Your task to perform on an android device: Open Google Image 0: 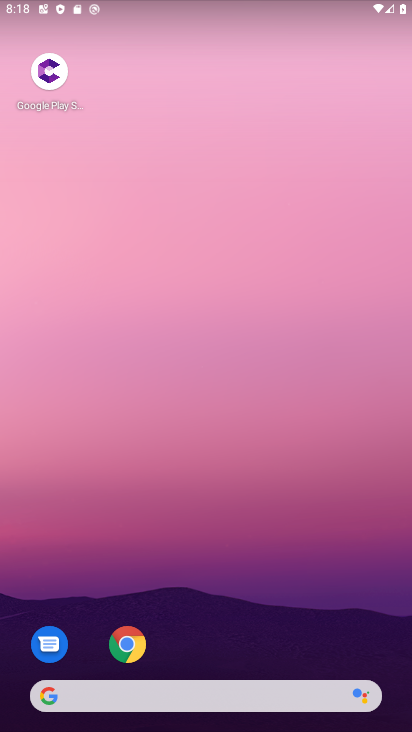
Step 0: drag from (255, 712) to (273, 85)
Your task to perform on an android device: Open Google Image 1: 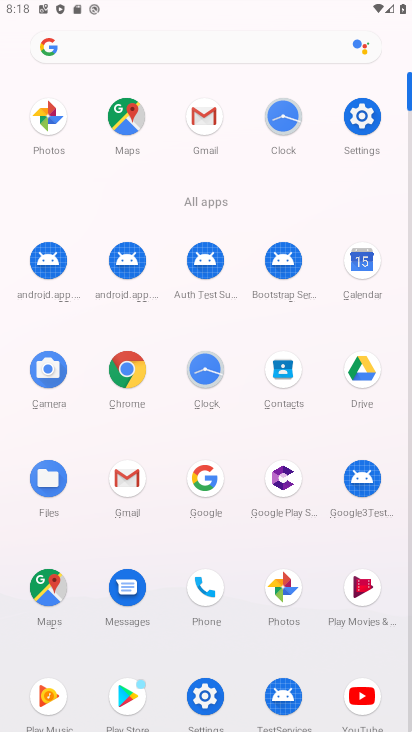
Step 1: click (137, 120)
Your task to perform on an android device: Open Google Image 2: 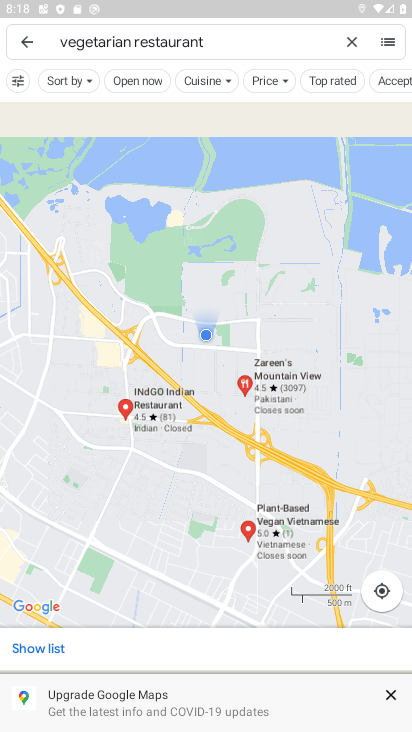
Step 2: click (21, 46)
Your task to perform on an android device: Open Google Image 3: 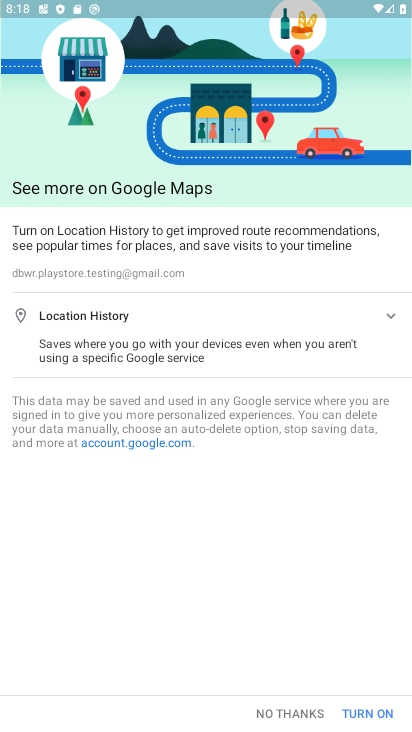
Step 3: click (284, 713)
Your task to perform on an android device: Open Google Image 4: 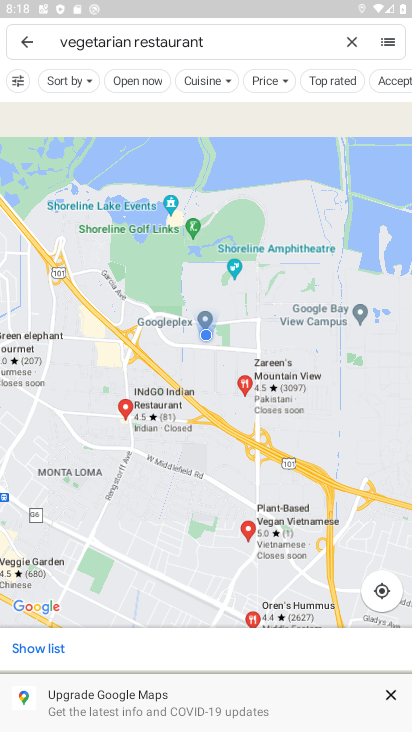
Step 4: task complete